Your task to perform on an android device: see creations saved in the google photos Image 0: 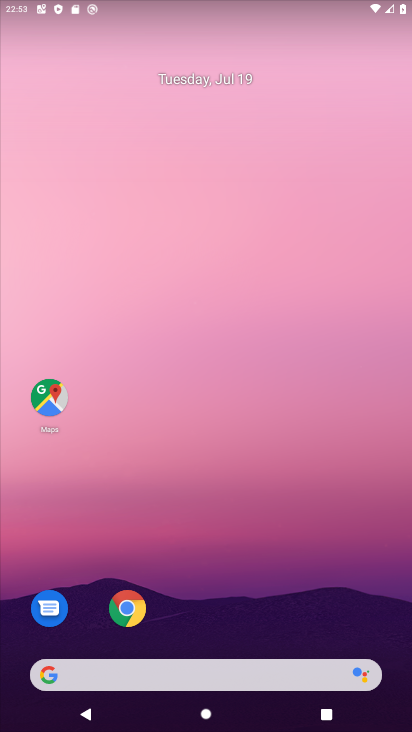
Step 0: drag from (286, 588) to (265, 29)
Your task to perform on an android device: see creations saved in the google photos Image 1: 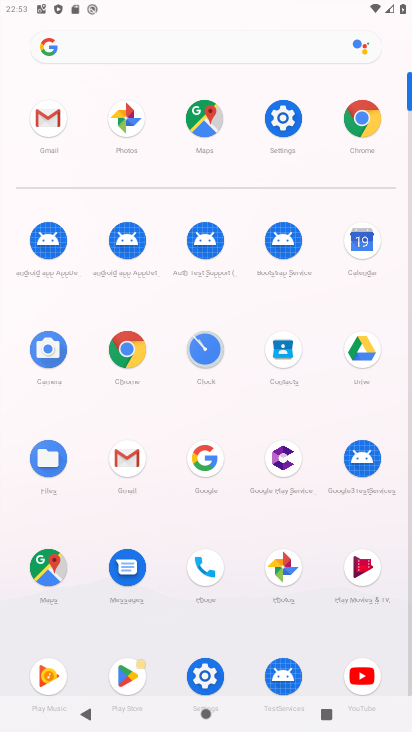
Step 1: click (281, 579)
Your task to perform on an android device: see creations saved in the google photos Image 2: 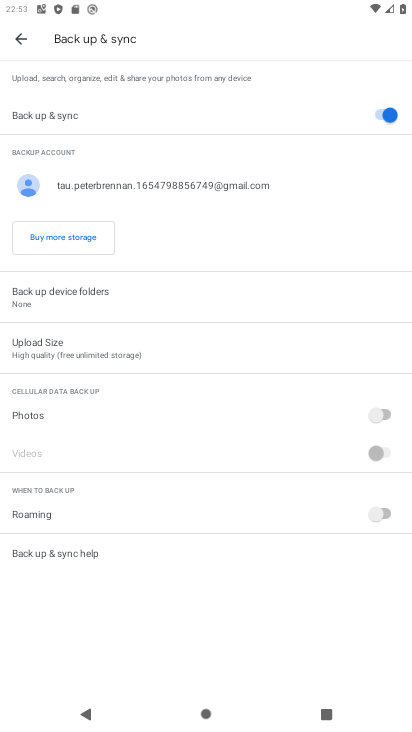
Step 2: click (23, 37)
Your task to perform on an android device: see creations saved in the google photos Image 3: 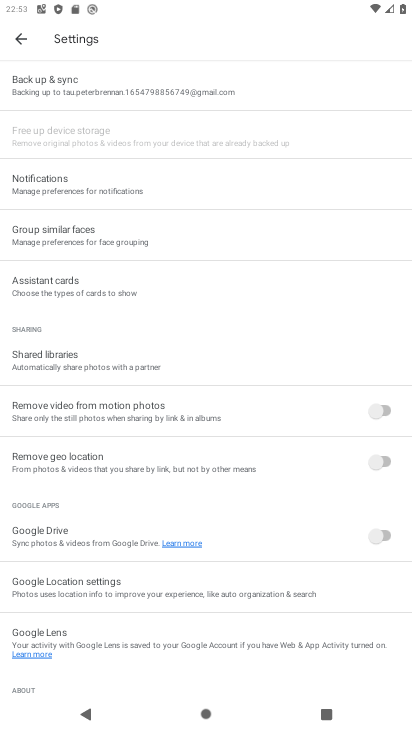
Step 3: click (12, 32)
Your task to perform on an android device: see creations saved in the google photos Image 4: 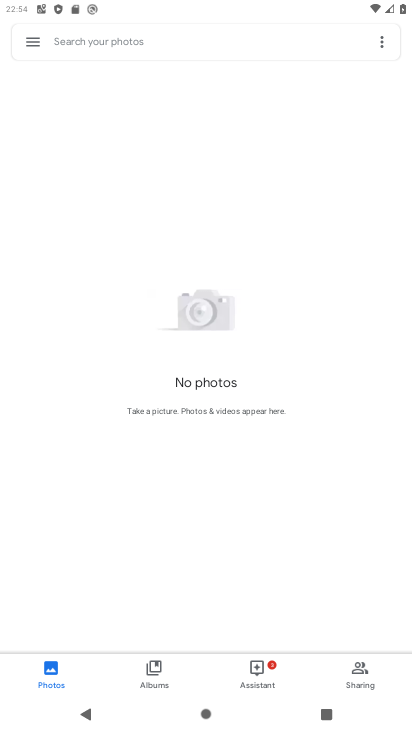
Step 4: click (173, 680)
Your task to perform on an android device: see creations saved in the google photos Image 5: 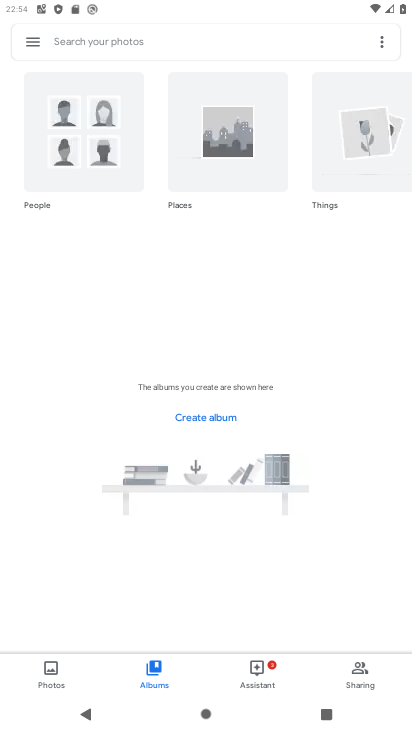
Step 5: click (267, 673)
Your task to perform on an android device: see creations saved in the google photos Image 6: 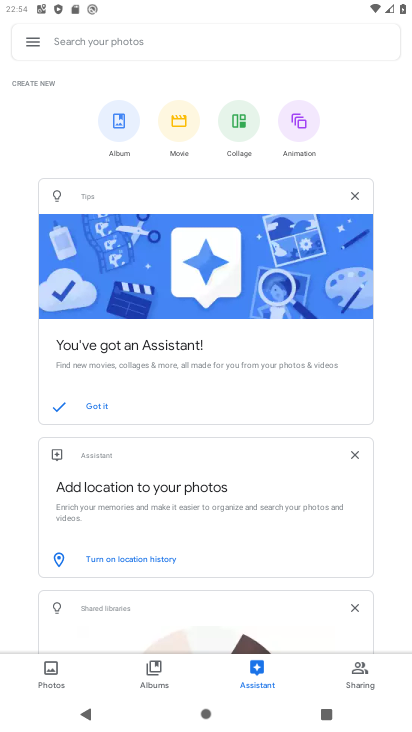
Step 6: click (342, 678)
Your task to perform on an android device: see creations saved in the google photos Image 7: 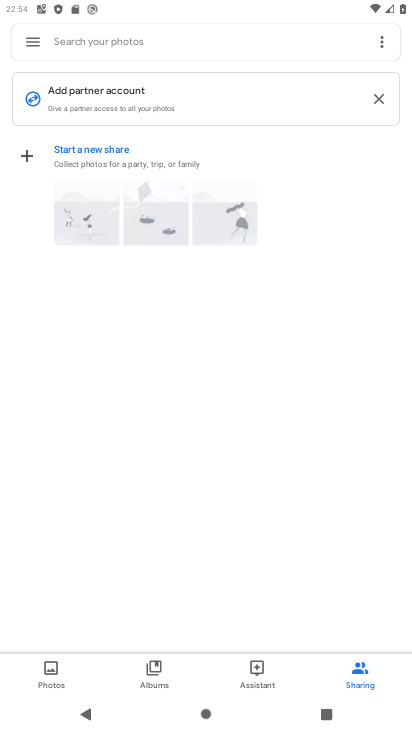
Step 7: task complete